Your task to perform on an android device: Open location settings Image 0: 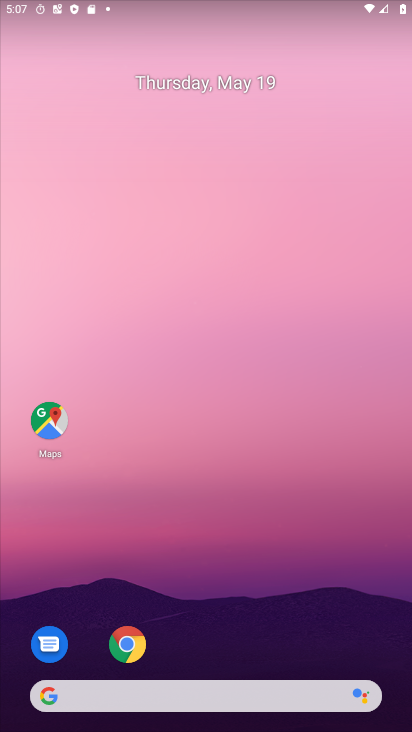
Step 0: drag from (219, 668) to (268, 241)
Your task to perform on an android device: Open location settings Image 1: 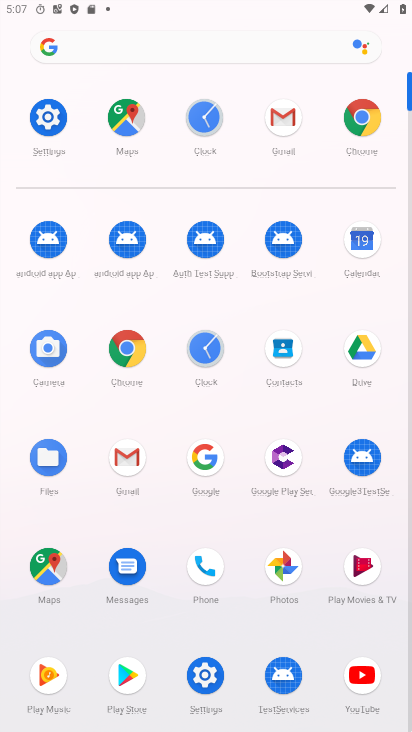
Step 1: click (204, 678)
Your task to perform on an android device: Open location settings Image 2: 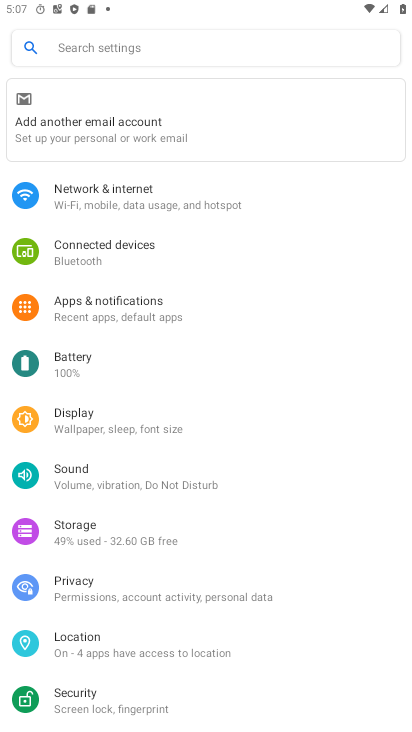
Step 2: click (133, 658)
Your task to perform on an android device: Open location settings Image 3: 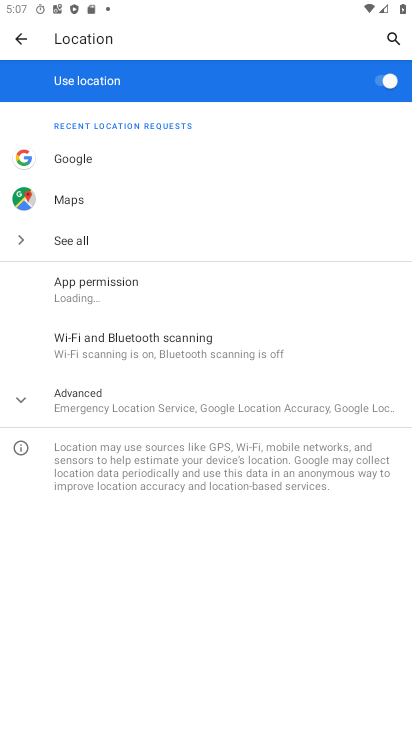
Step 3: click (120, 404)
Your task to perform on an android device: Open location settings Image 4: 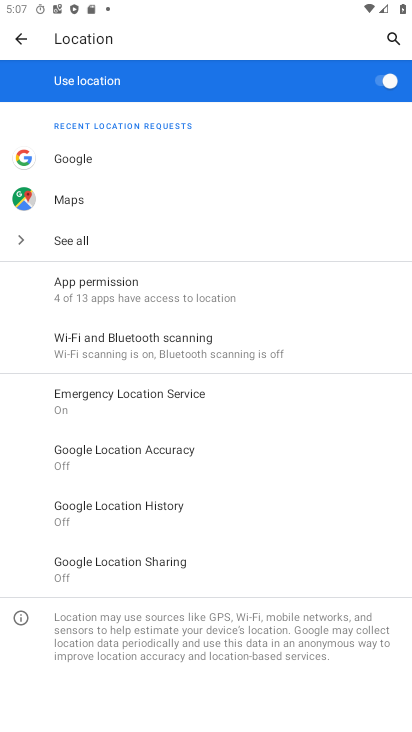
Step 4: task complete